Your task to perform on an android device: What's the weather today? Image 0: 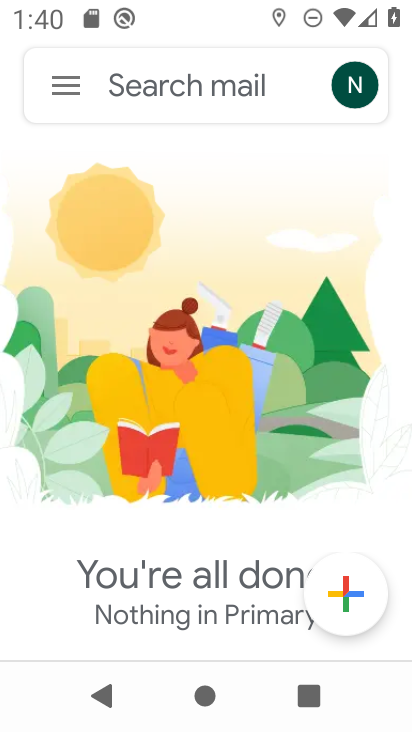
Step 0: press home button
Your task to perform on an android device: What's the weather today? Image 1: 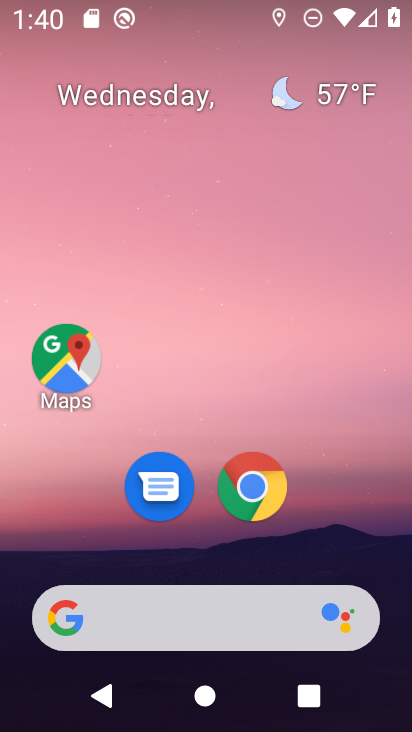
Step 1: click (187, 610)
Your task to perform on an android device: What's the weather today? Image 2: 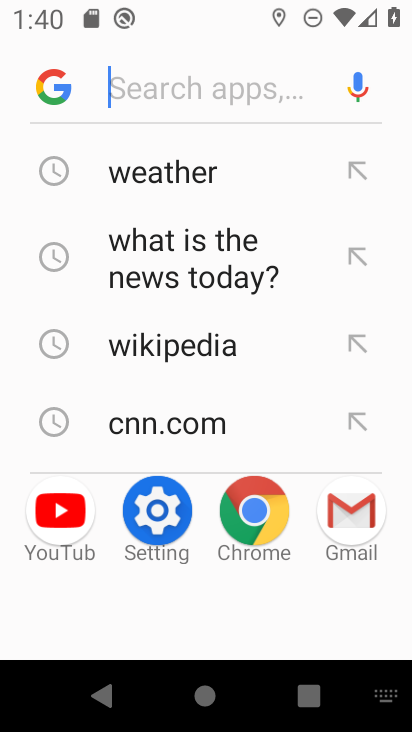
Step 2: click (201, 183)
Your task to perform on an android device: What's the weather today? Image 3: 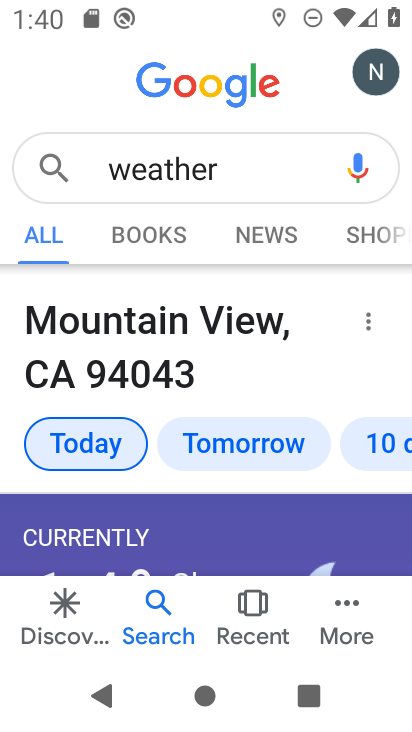
Step 3: task complete